Your task to perform on an android device: move a message to another label in the gmail app Image 0: 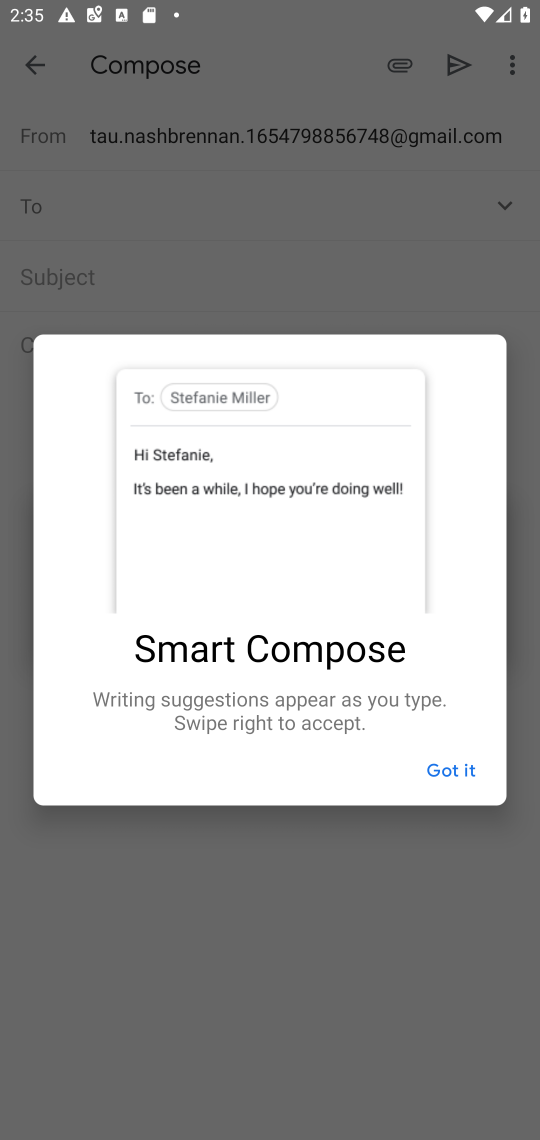
Step 0: press home button
Your task to perform on an android device: move a message to another label in the gmail app Image 1: 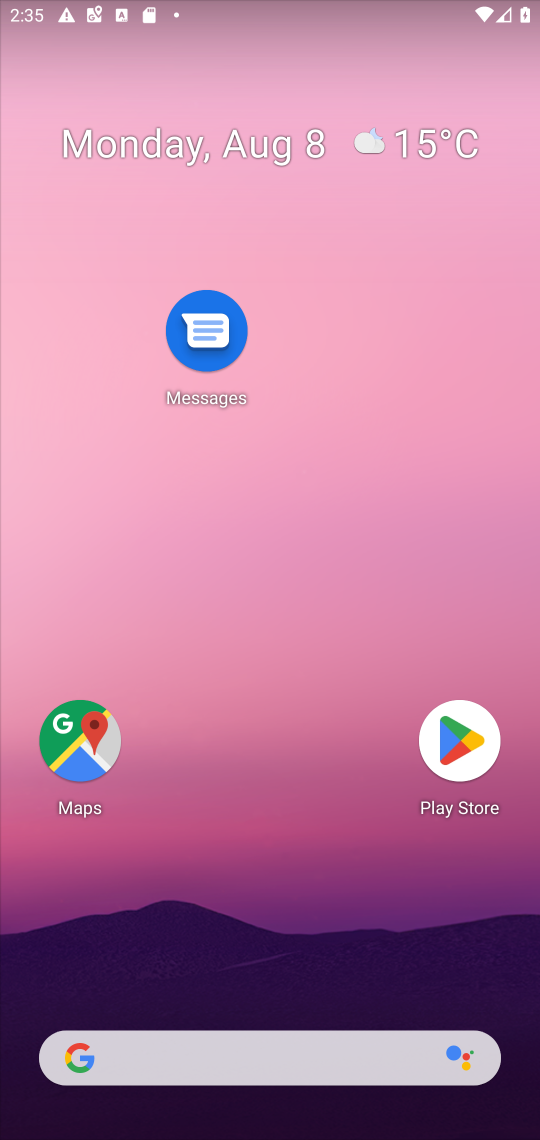
Step 1: drag from (365, 1057) to (280, 92)
Your task to perform on an android device: move a message to another label in the gmail app Image 2: 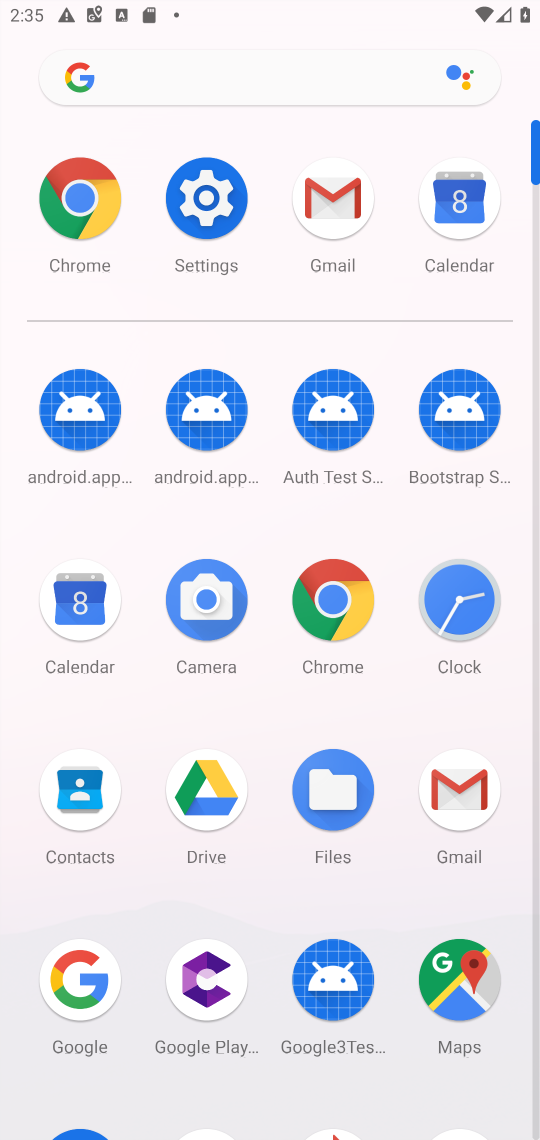
Step 2: click (323, 229)
Your task to perform on an android device: move a message to another label in the gmail app Image 3: 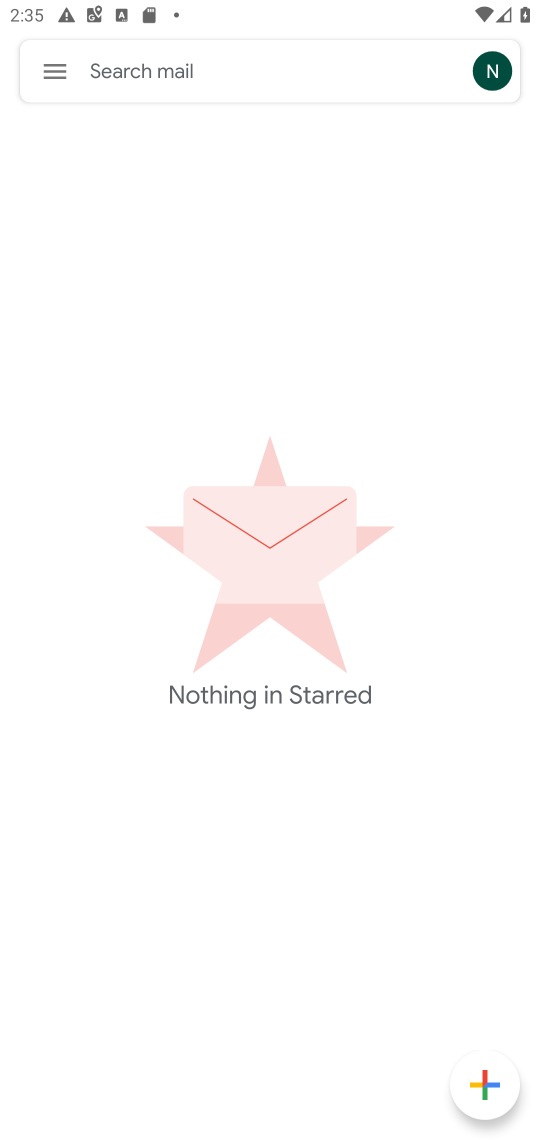
Step 3: press back button
Your task to perform on an android device: move a message to another label in the gmail app Image 4: 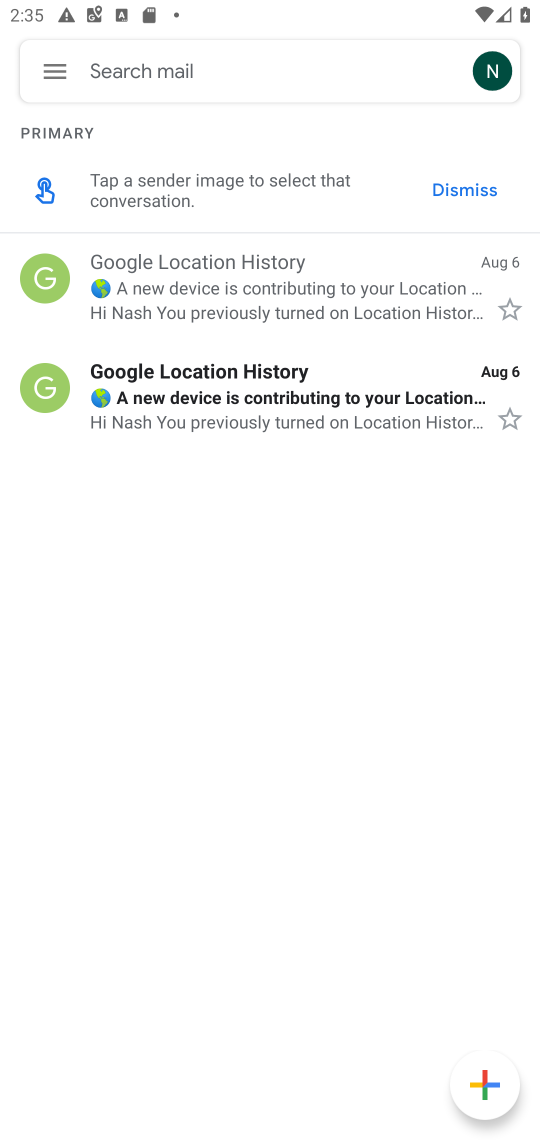
Step 4: click (300, 292)
Your task to perform on an android device: move a message to another label in the gmail app Image 5: 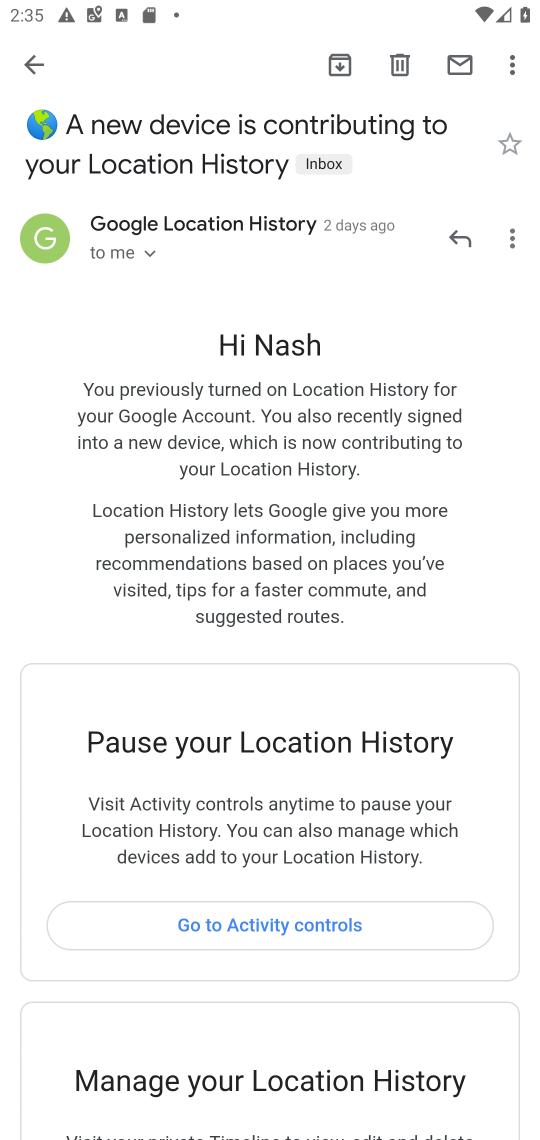
Step 5: click (516, 62)
Your task to perform on an android device: move a message to another label in the gmail app Image 6: 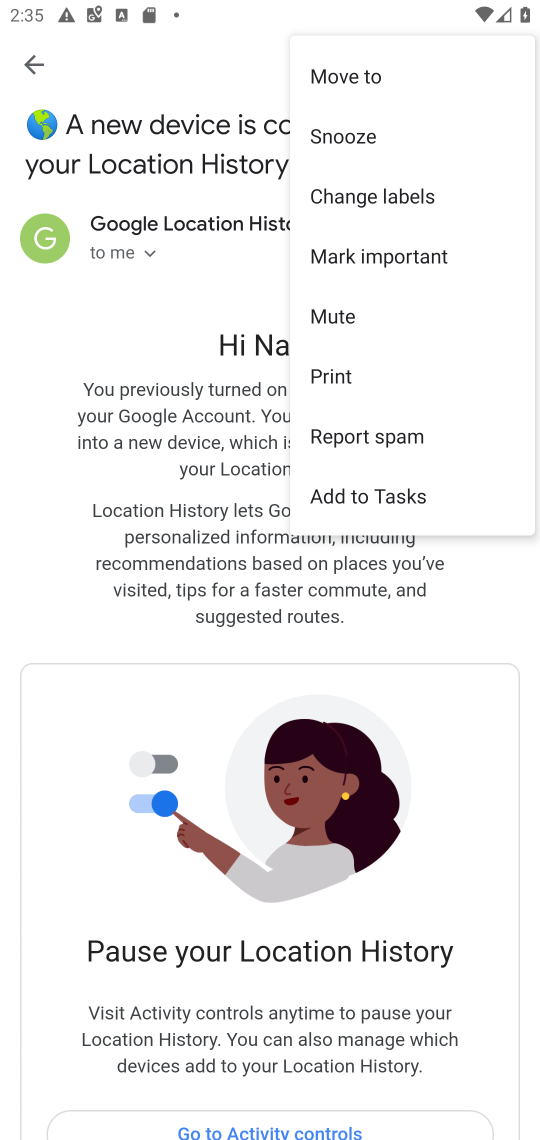
Step 6: click (403, 201)
Your task to perform on an android device: move a message to another label in the gmail app Image 7: 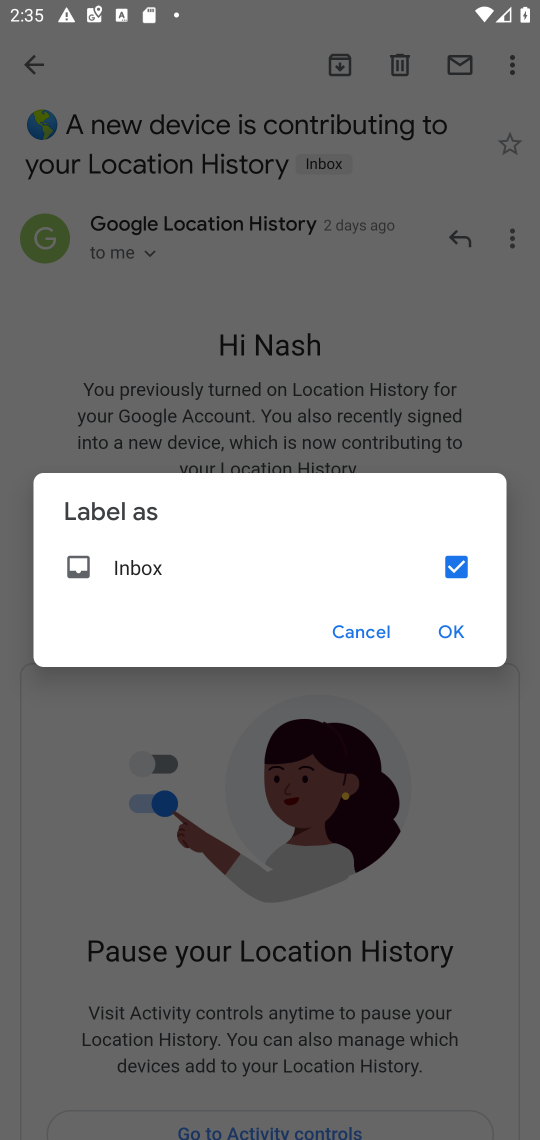
Step 7: click (446, 626)
Your task to perform on an android device: move a message to another label in the gmail app Image 8: 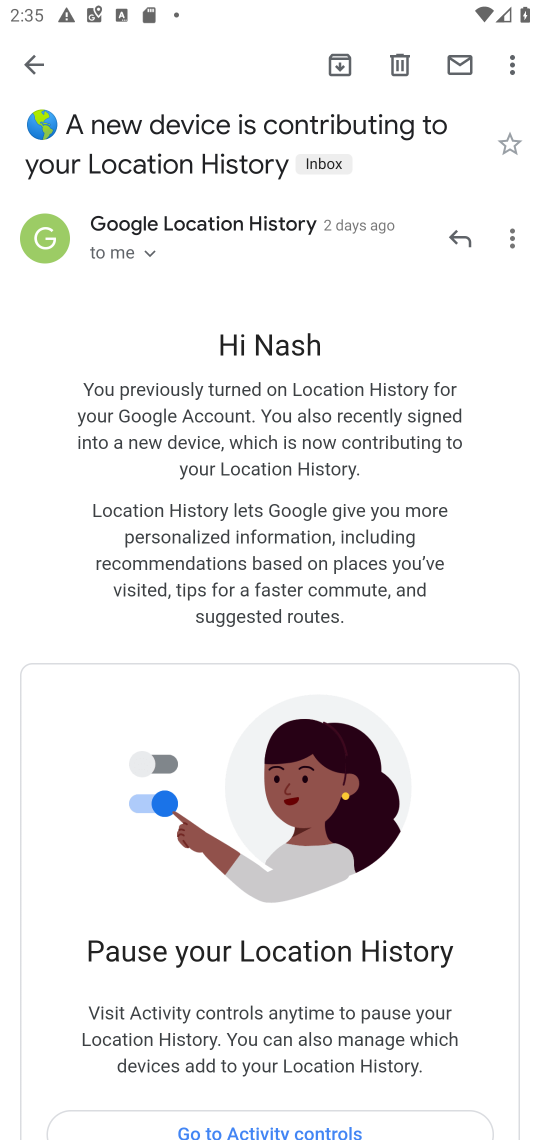
Step 8: task complete